Your task to perform on an android device: turn off improve location accuracy Image 0: 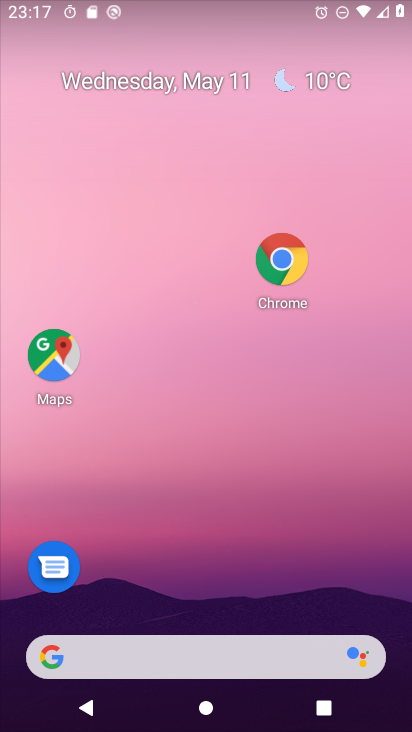
Step 0: drag from (128, 653) to (292, 110)
Your task to perform on an android device: turn off improve location accuracy Image 1: 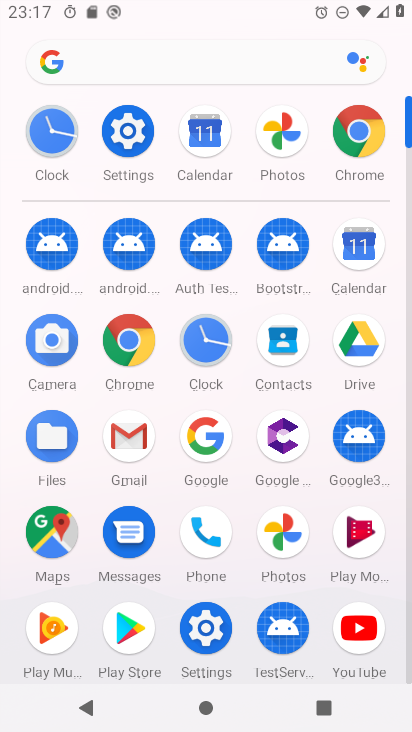
Step 1: click (131, 138)
Your task to perform on an android device: turn off improve location accuracy Image 2: 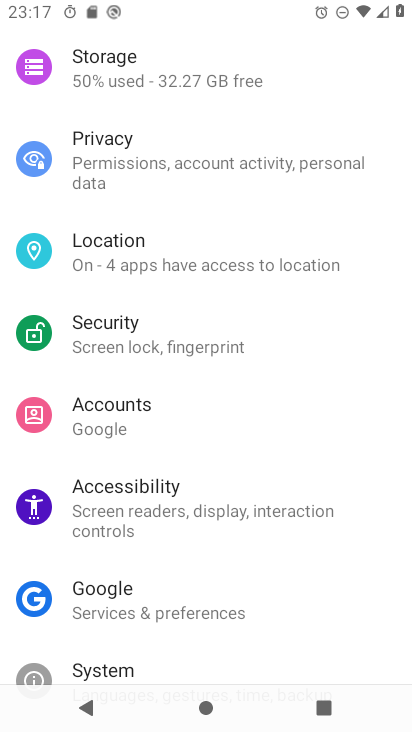
Step 2: click (125, 262)
Your task to perform on an android device: turn off improve location accuracy Image 3: 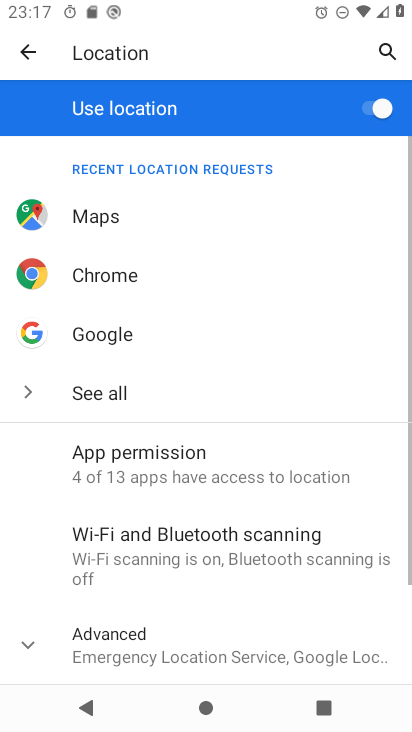
Step 3: drag from (180, 622) to (283, 218)
Your task to perform on an android device: turn off improve location accuracy Image 4: 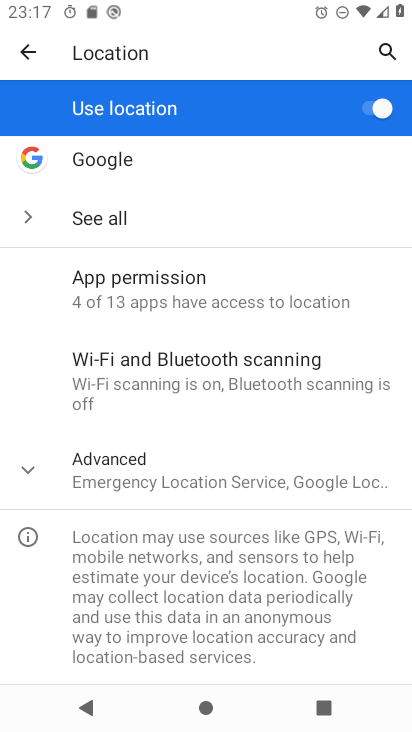
Step 4: click (105, 475)
Your task to perform on an android device: turn off improve location accuracy Image 5: 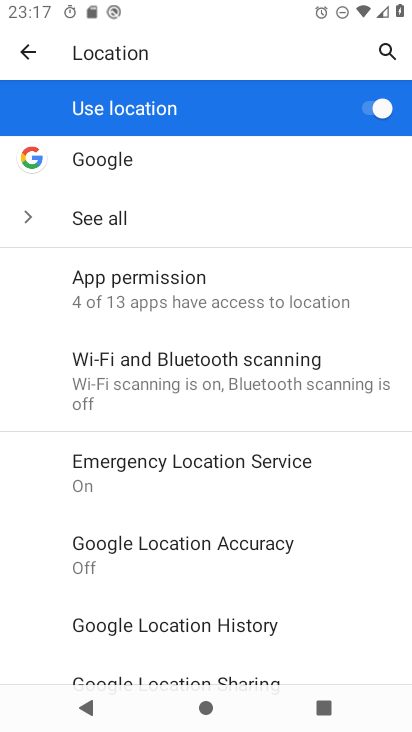
Step 5: click (130, 549)
Your task to perform on an android device: turn off improve location accuracy Image 6: 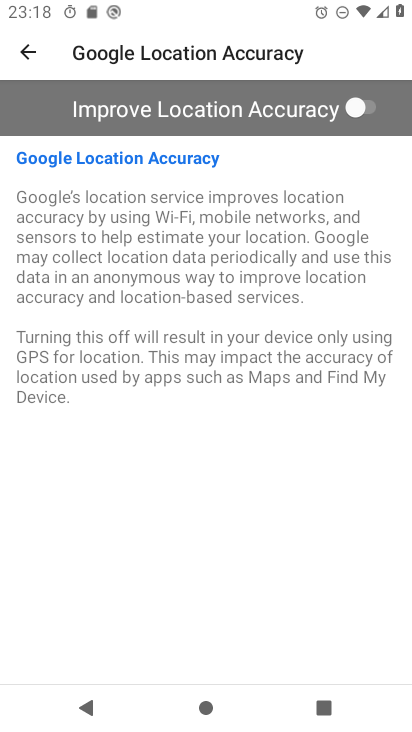
Step 6: task complete